Your task to perform on an android device: refresh tabs in the chrome app Image 0: 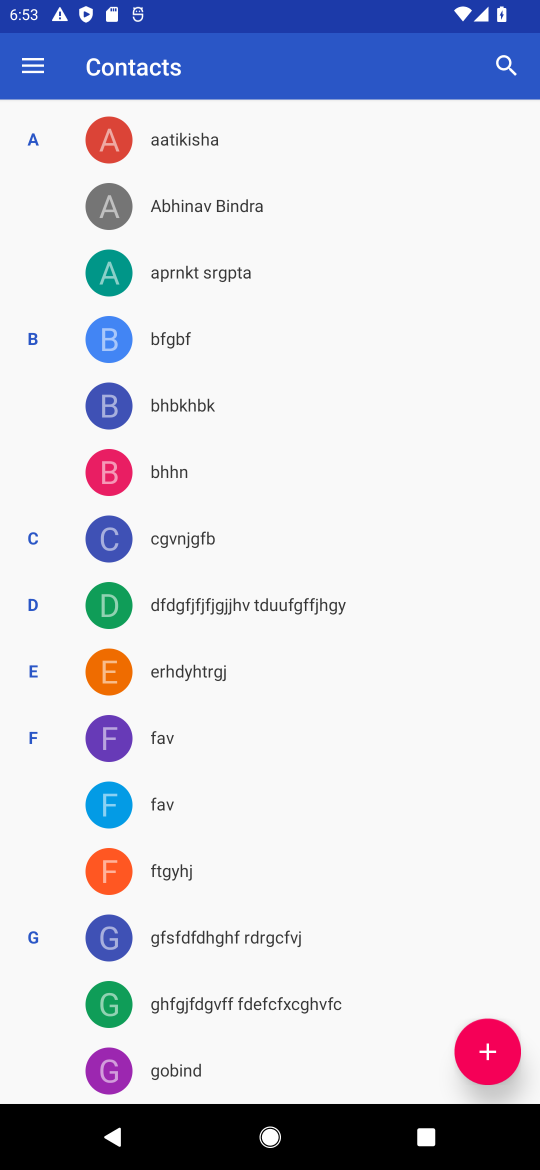
Step 0: press home button
Your task to perform on an android device: refresh tabs in the chrome app Image 1: 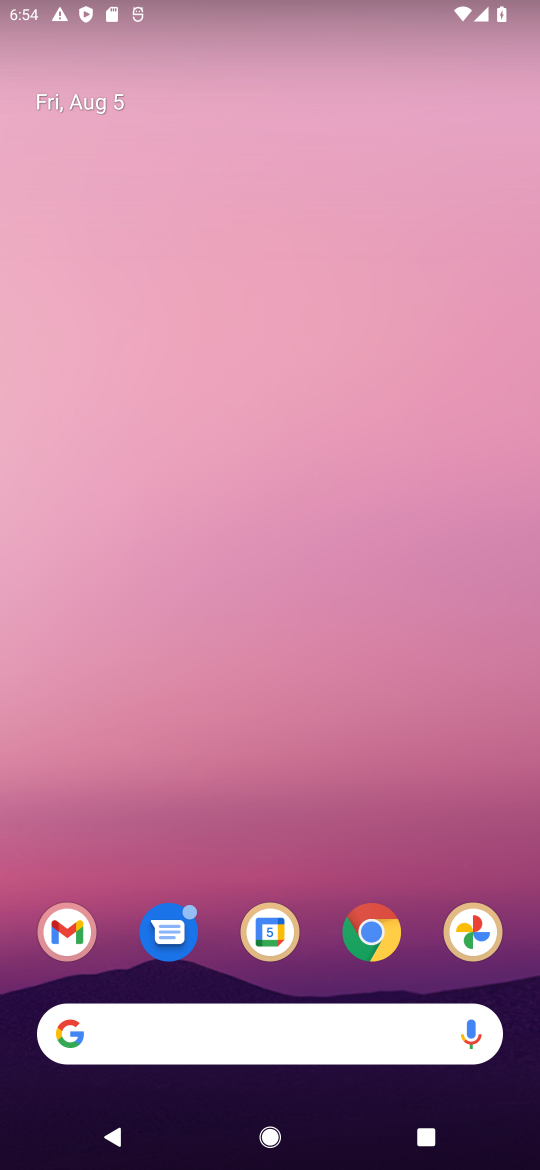
Step 1: click (371, 941)
Your task to perform on an android device: refresh tabs in the chrome app Image 2: 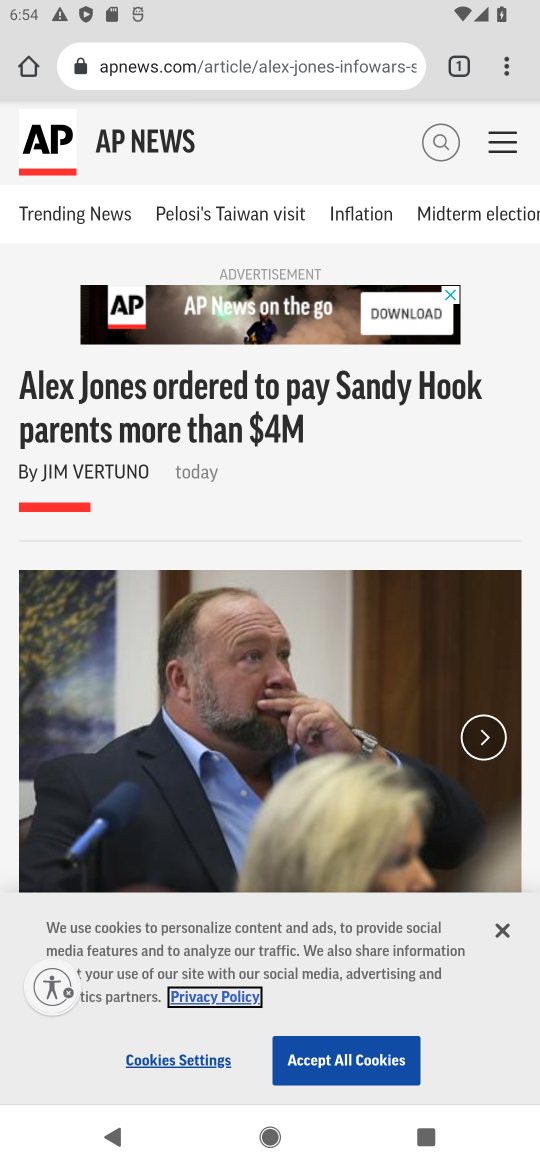
Step 2: click (503, 76)
Your task to perform on an android device: refresh tabs in the chrome app Image 3: 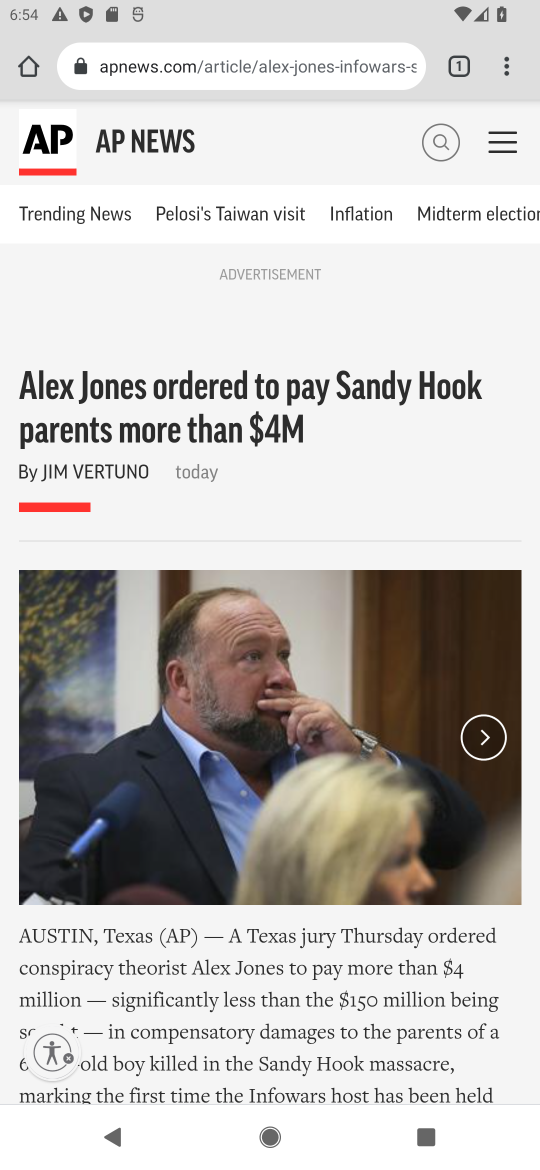
Step 3: task complete